Your task to perform on an android device: toggle notification dots Image 0: 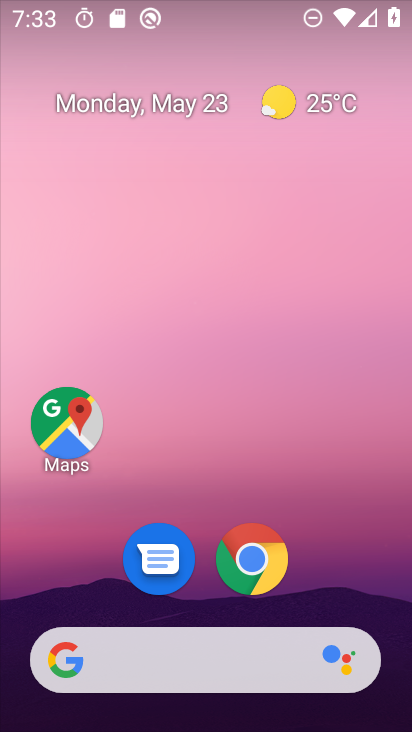
Step 0: drag from (374, 668) to (330, 87)
Your task to perform on an android device: toggle notification dots Image 1: 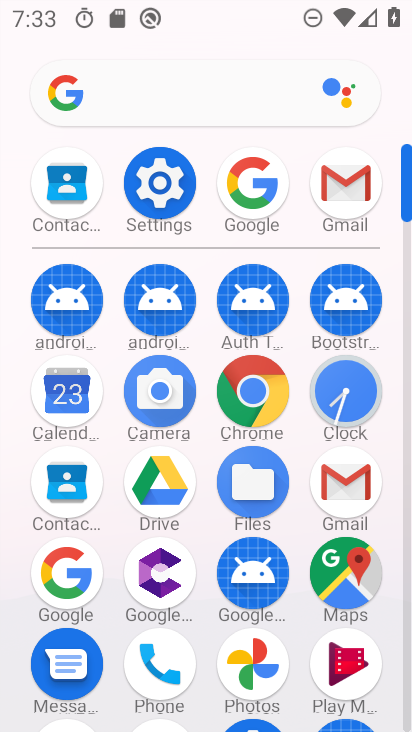
Step 1: click (149, 192)
Your task to perform on an android device: toggle notification dots Image 2: 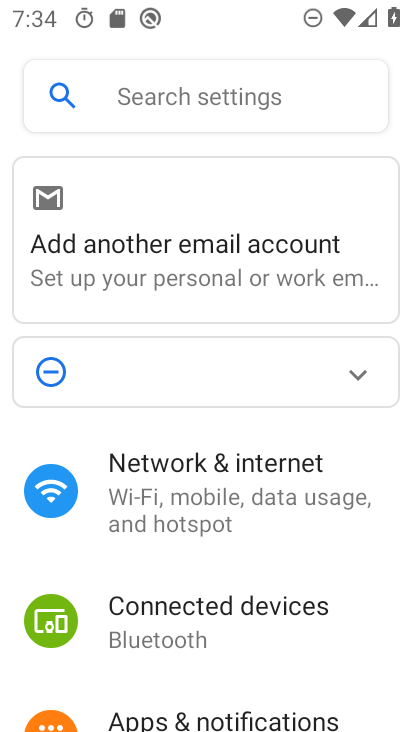
Step 2: click (230, 731)
Your task to perform on an android device: toggle notification dots Image 3: 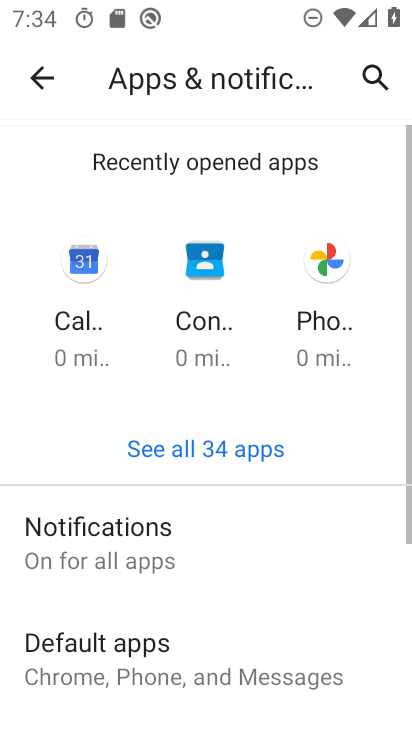
Step 3: drag from (201, 659) to (218, 324)
Your task to perform on an android device: toggle notification dots Image 4: 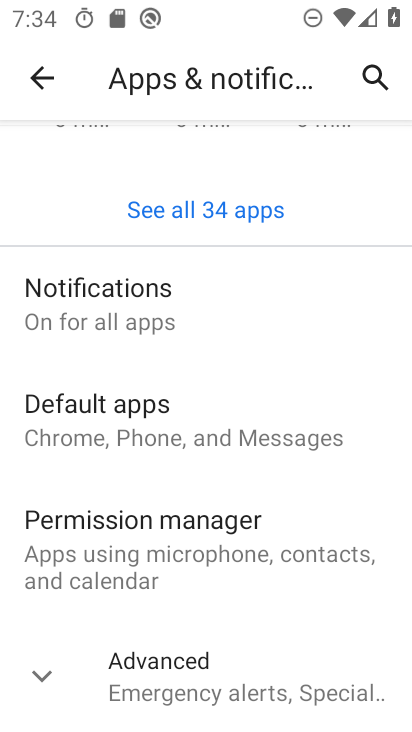
Step 4: click (159, 306)
Your task to perform on an android device: toggle notification dots Image 5: 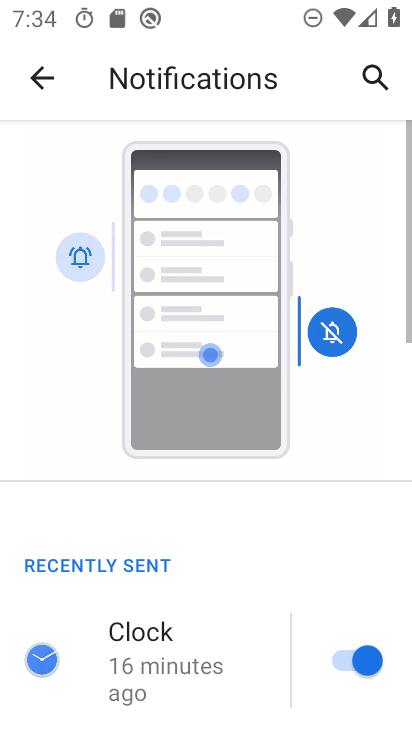
Step 5: drag from (160, 638) to (227, 49)
Your task to perform on an android device: toggle notification dots Image 6: 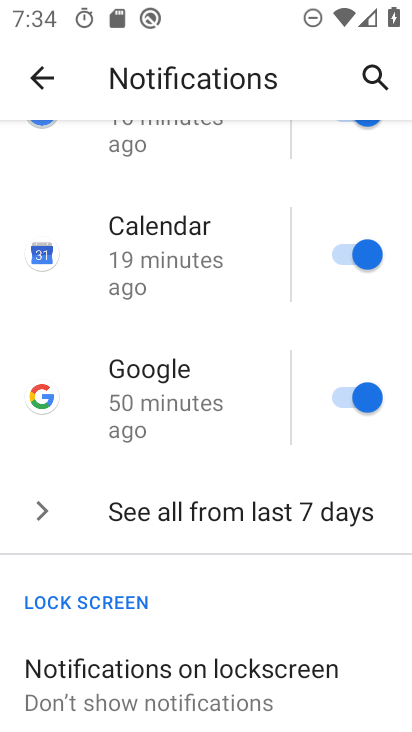
Step 6: drag from (179, 664) to (231, 167)
Your task to perform on an android device: toggle notification dots Image 7: 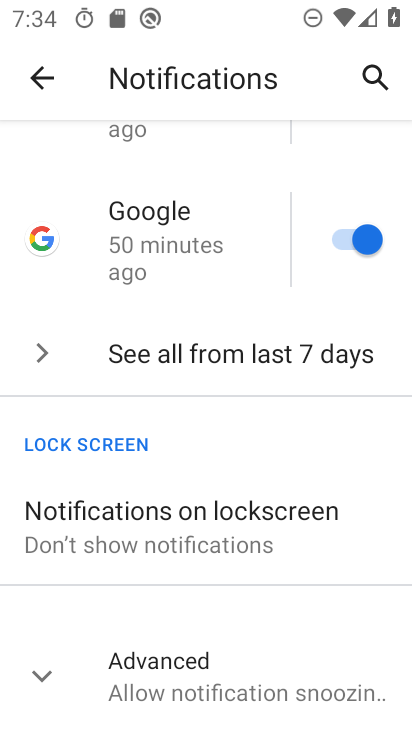
Step 7: click (83, 670)
Your task to perform on an android device: toggle notification dots Image 8: 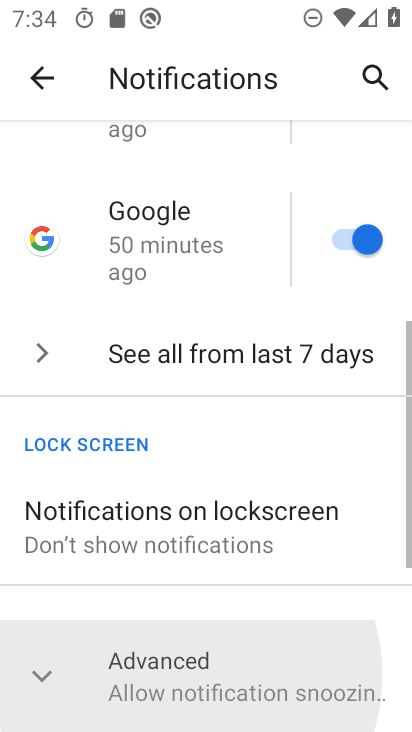
Step 8: drag from (115, 675) to (212, 167)
Your task to perform on an android device: toggle notification dots Image 9: 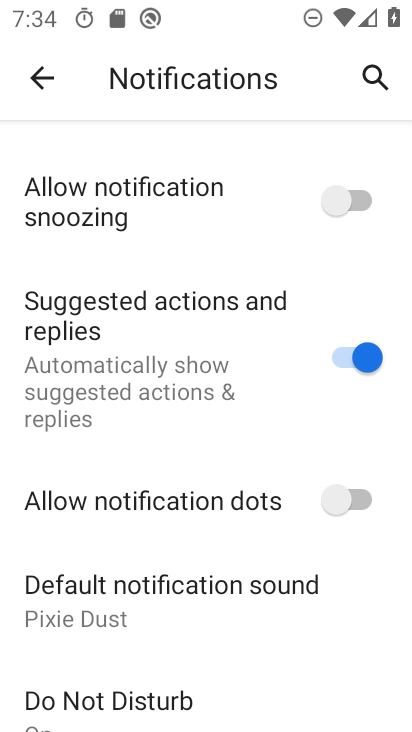
Step 9: click (280, 499)
Your task to perform on an android device: toggle notification dots Image 10: 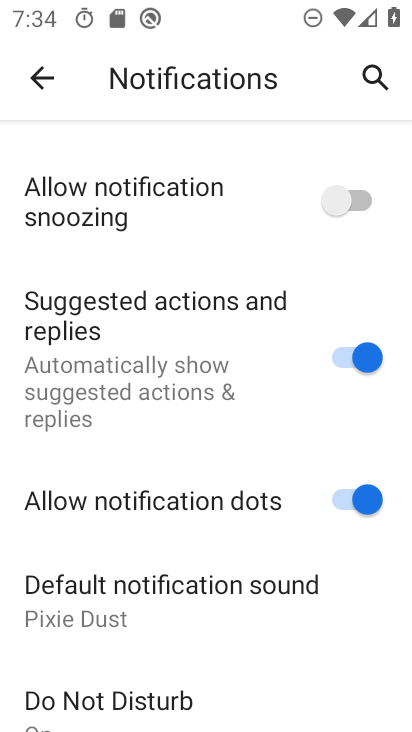
Step 10: task complete